Your task to perform on an android device: Google the capital of Mexico Image 0: 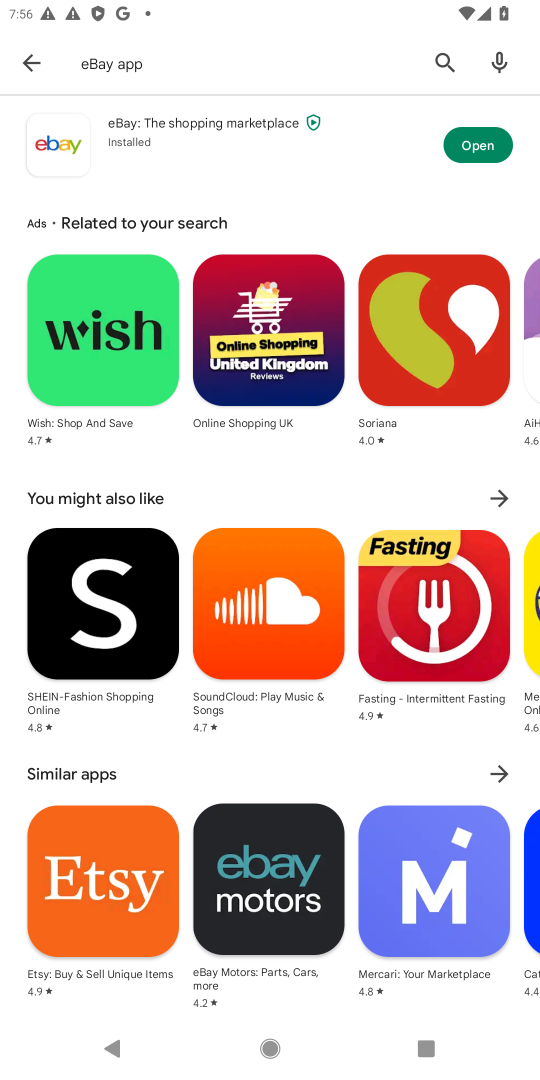
Step 0: press home button
Your task to perform on an android device: Google the capital of Mexico Image 1: 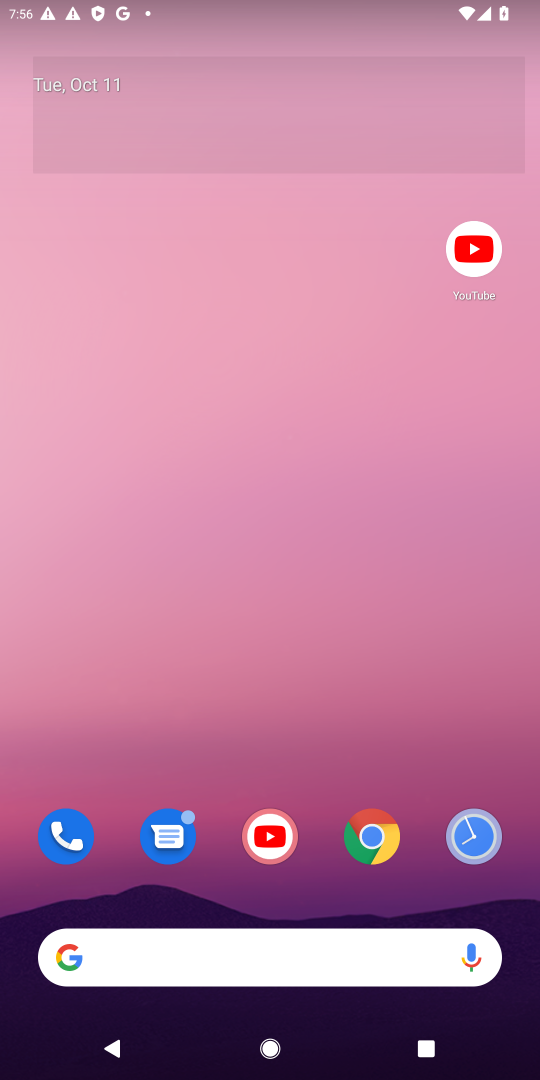
Step 1: click (367, 833)
Your task to perform on an android device: Google the capital of Mexico Image 2: 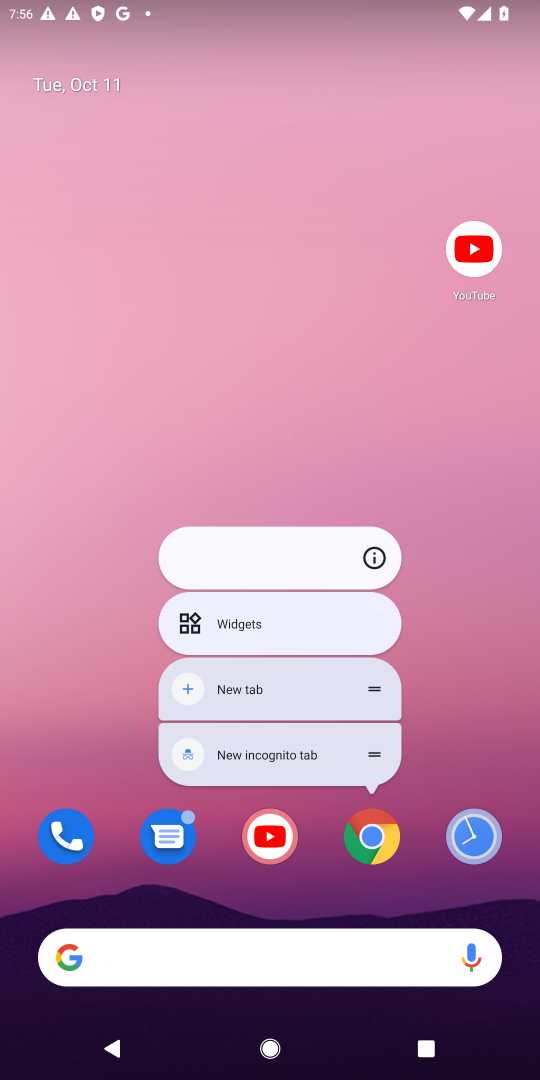
Step 2: click (367, 833)
Your task to perform on an android device: Google the capital of Mexico Image 3: 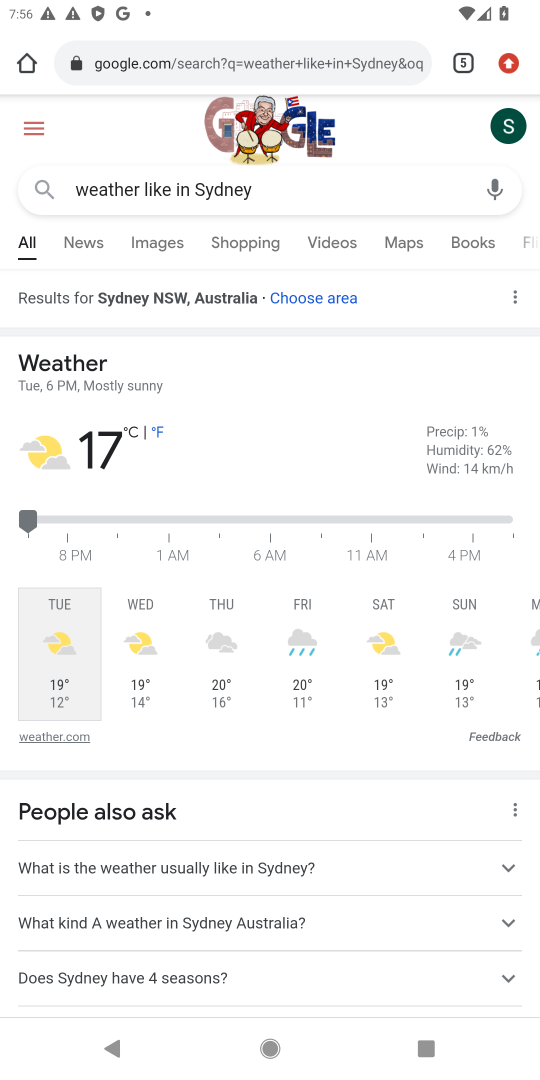
Step 3: click (325, 59)
Your task to perform on an android device: Google the capital of Mexico Image 4: 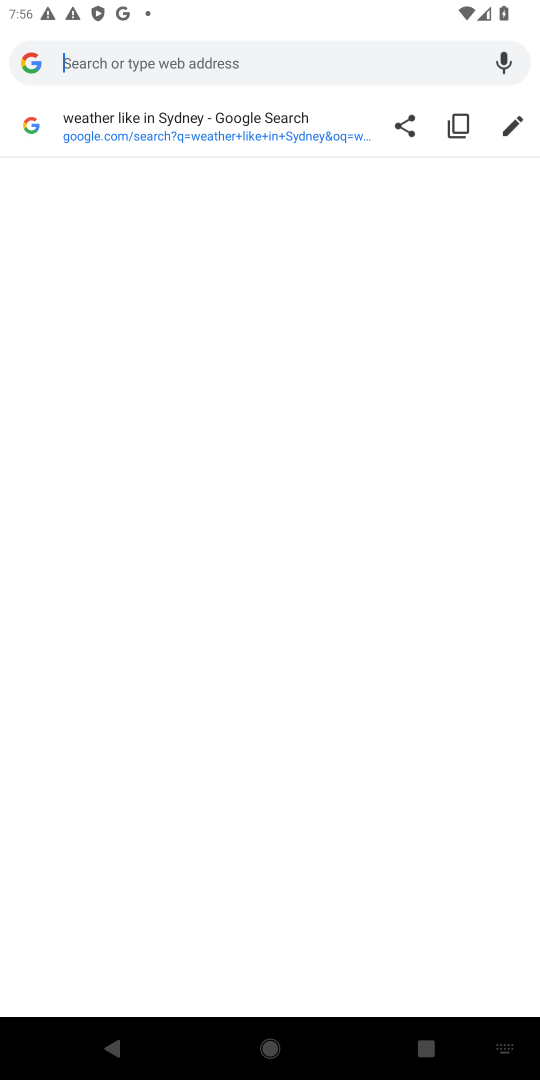
Step 4: type " capital of Mexico"
Your task to perform on an android device: Google the capital of Mexico Image 5: 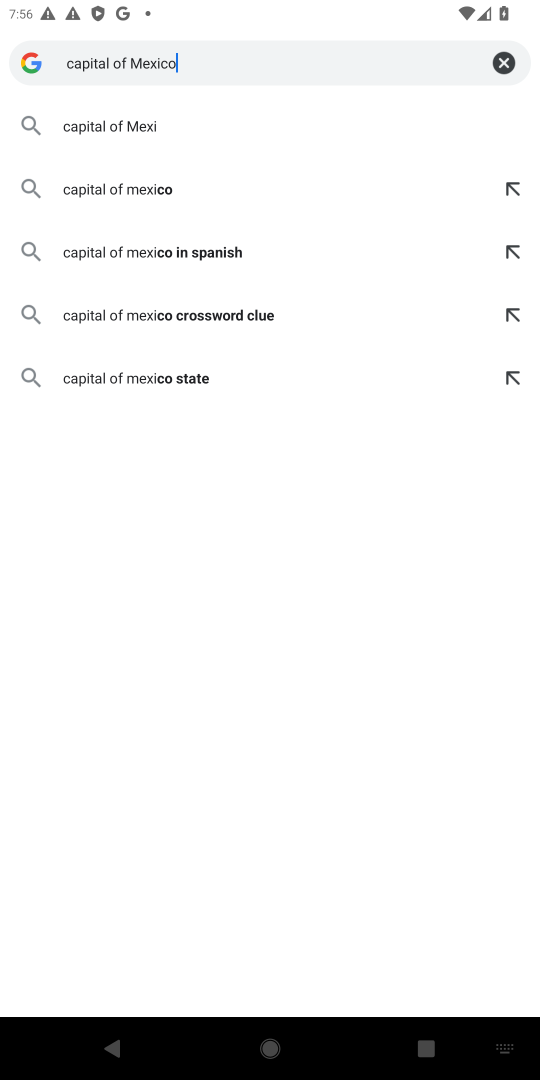
Step 5: press enter
Your task to perform on an android device: Google the capital of Mexico Image 6: 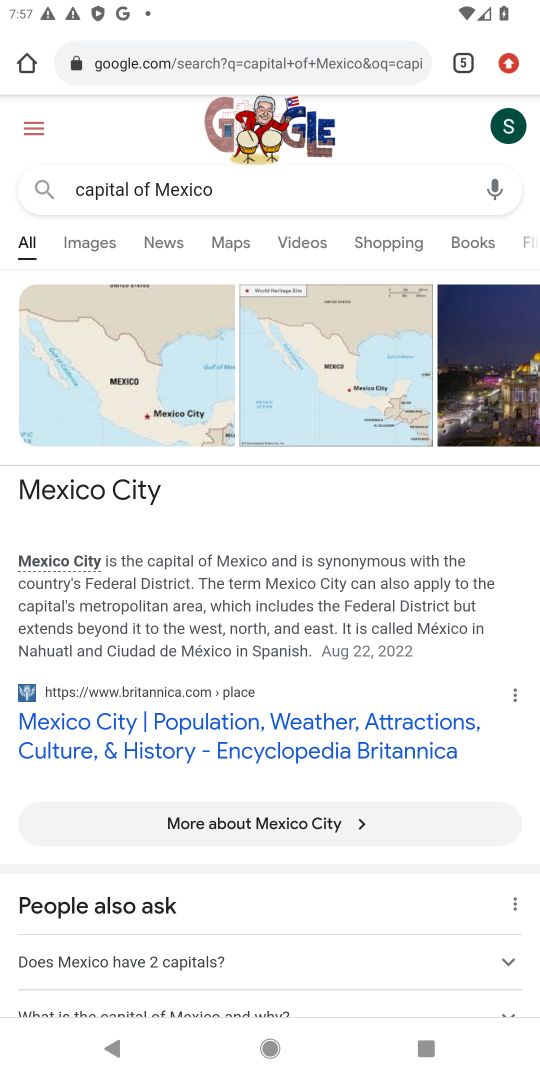
Step 6: task complete